Your task to perform on an android device: open app "Viber Messenger" Image 0: 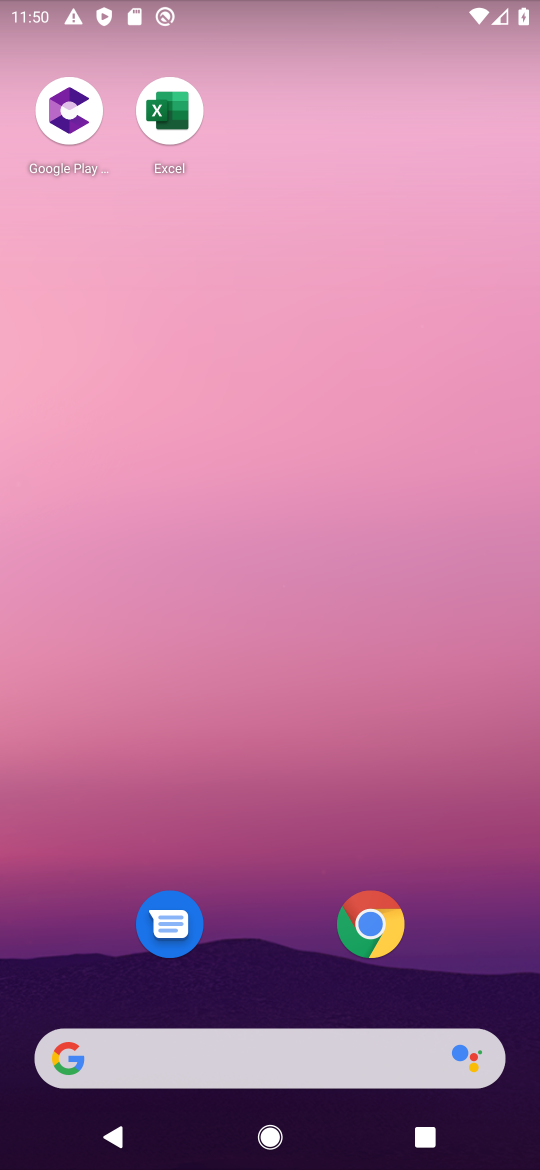
Step 0: press home button
Your task to perform on an android device: open app "Viber Messenger" Image 1: 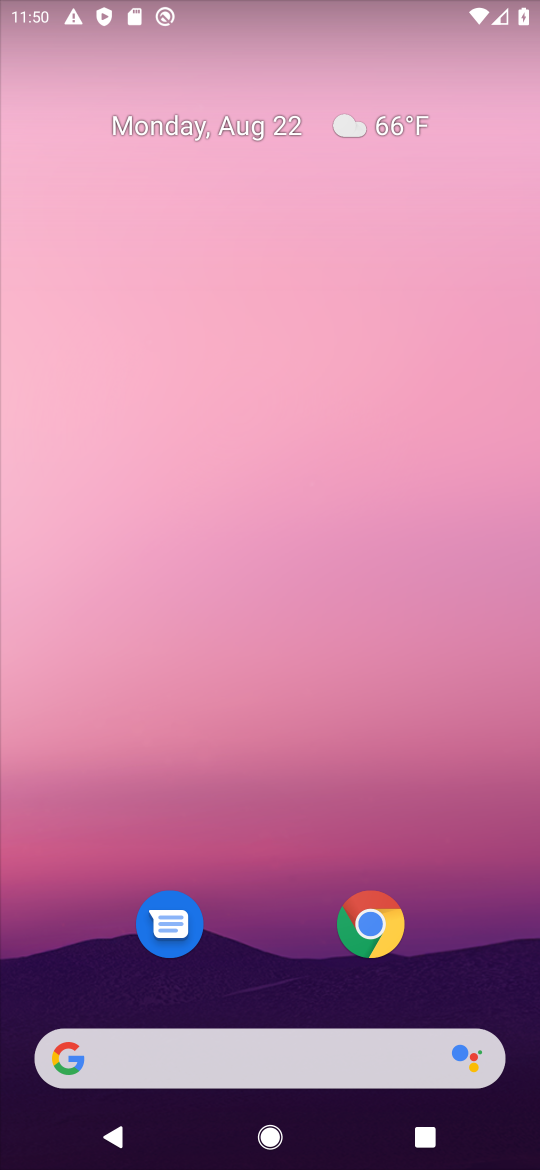
Step 1: drag from (481, 978) to (465, 232)
Your task to perform on an android device: open app "Viber Messenger" Image 2: 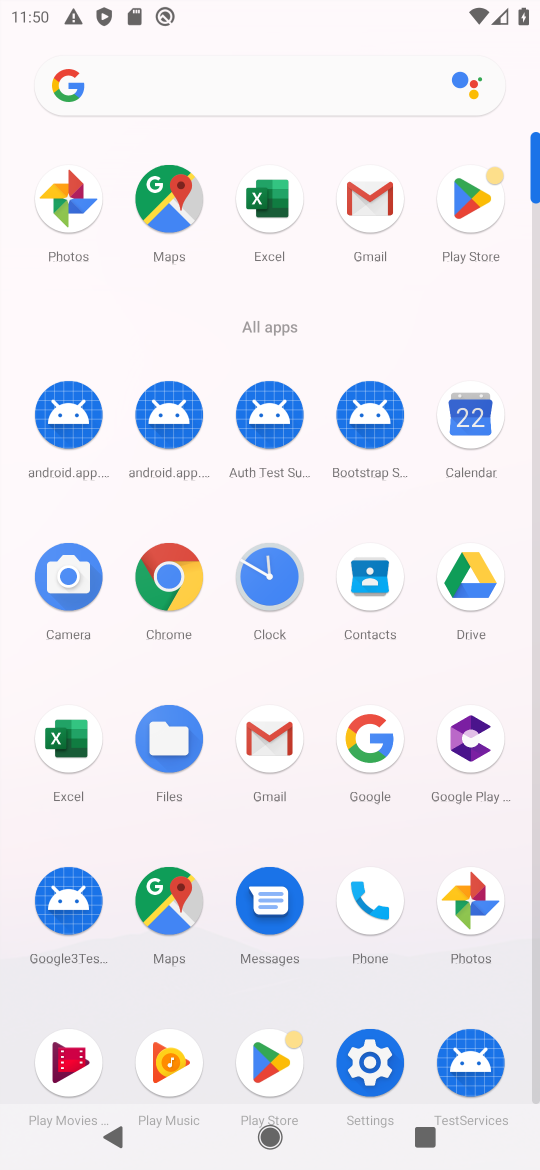
Step 2: click (471, 204)
Your task to perform on an android device: open app "Viber Messenger" Image 3: 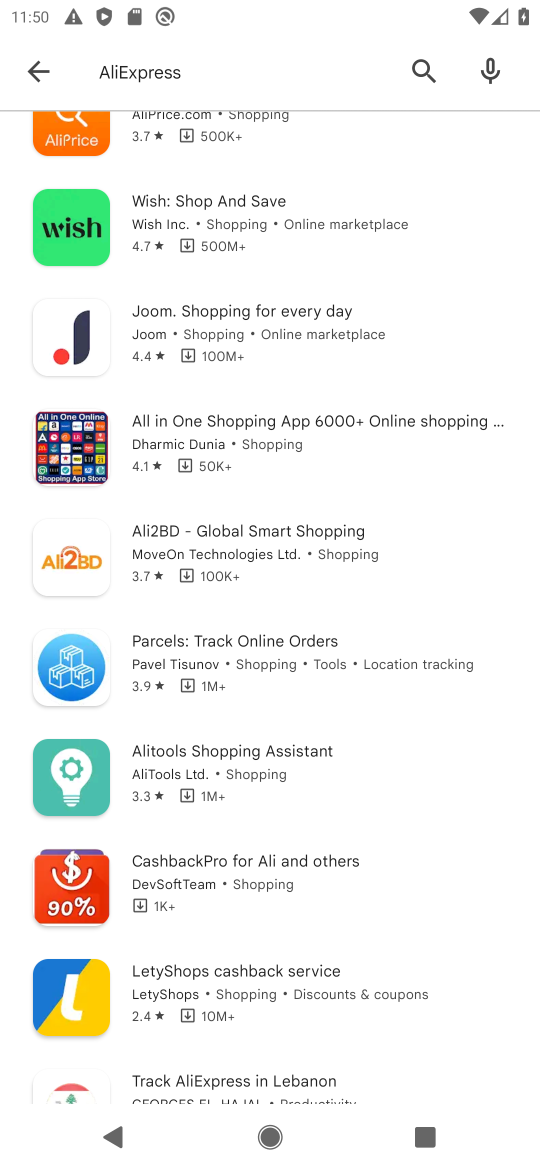
Step 3: press back button
Your task to perform on an android device: open app "Viber Messenger" Image 4: 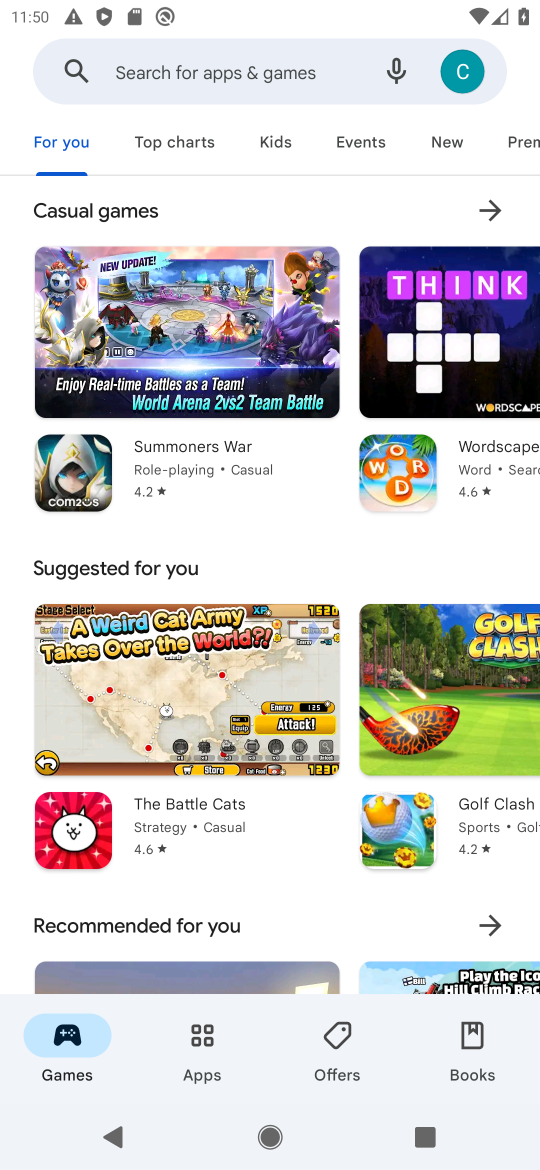
Step 4: click (185, 72)
Your task to perform on an android device: open app "Viber Messenger" Image 5: 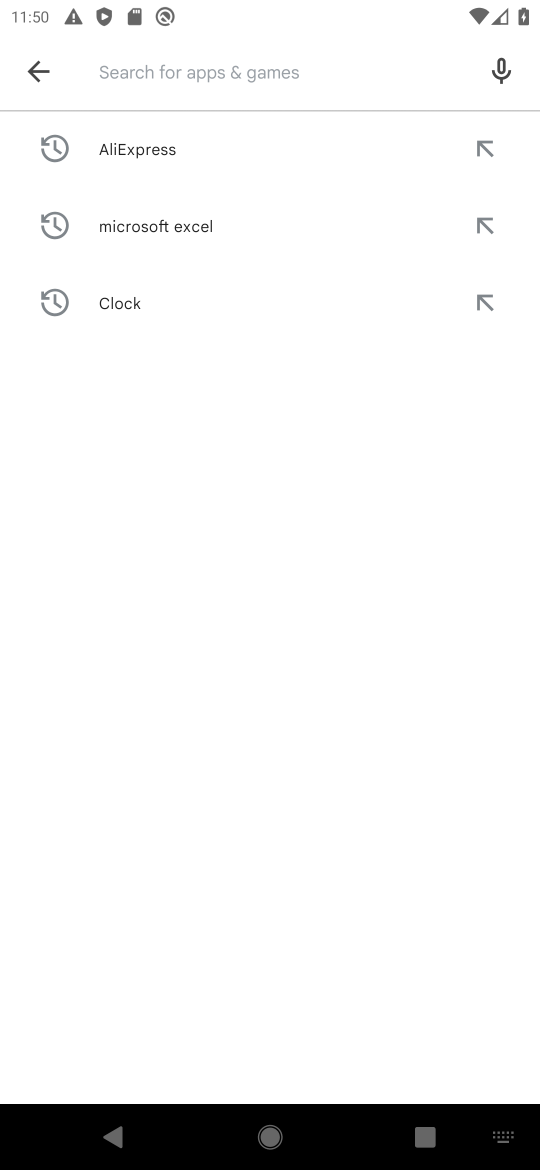
Step 5: type "Viber Messenger"
Your task to perform on an android device: open app "Viber Messenger" Image 6: 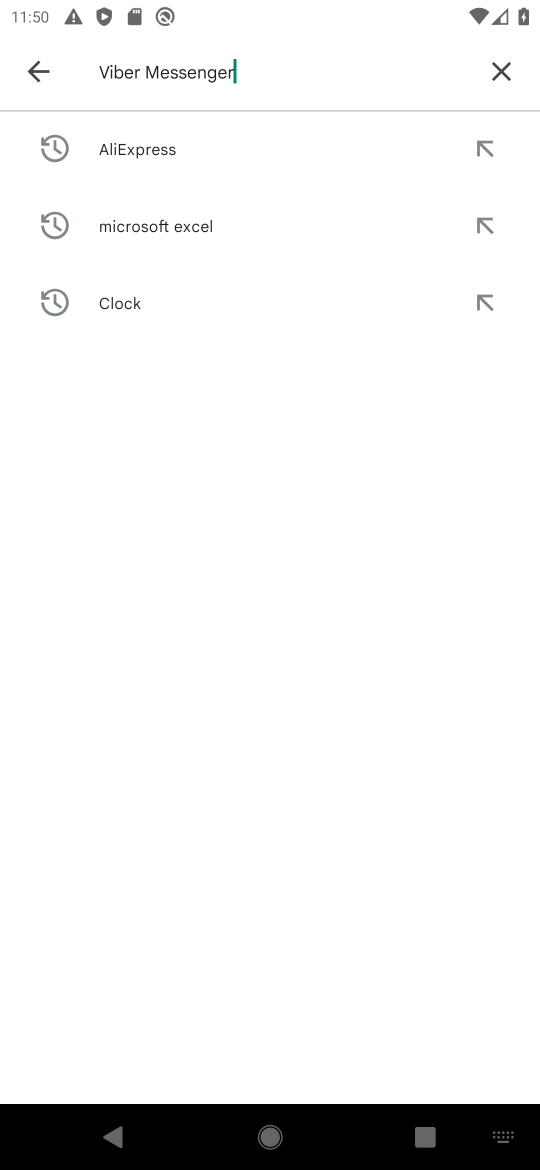
Step 6: press enter
Your task to perform on an android device: open app "Viber Messenger" Image 7: 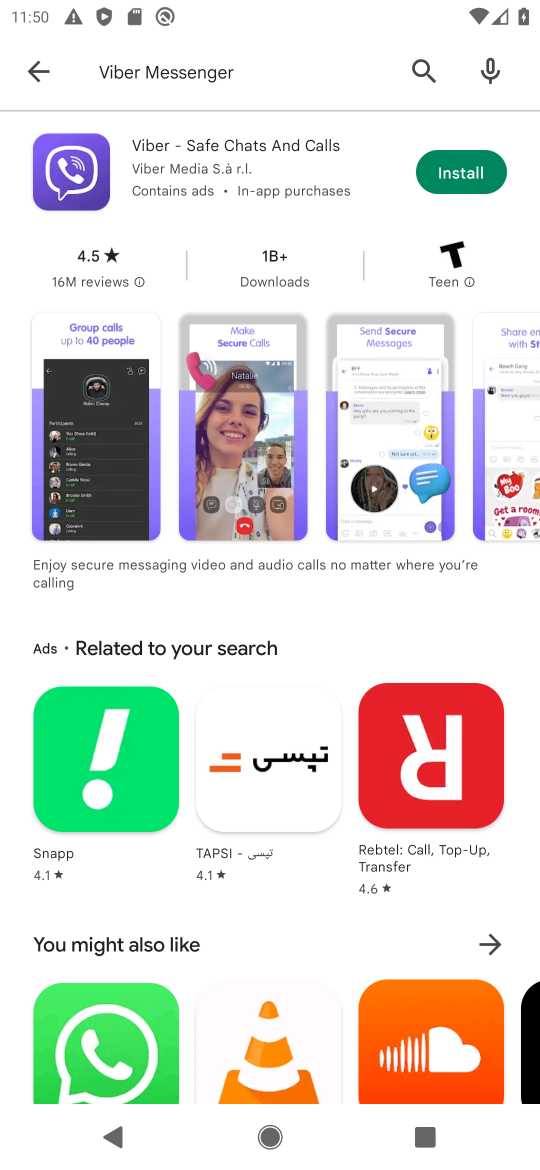
Step 7: task complete